Your task to perform on an android device: turn on location history Image 0: 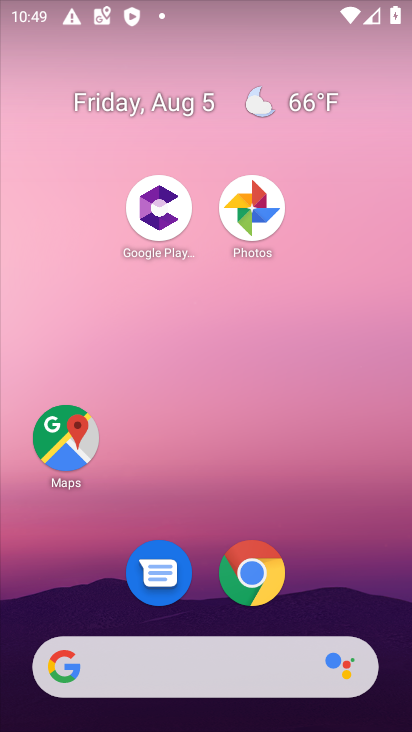
Step 0: press home button
Your task to perform on an android device: turn on location history Image 1: 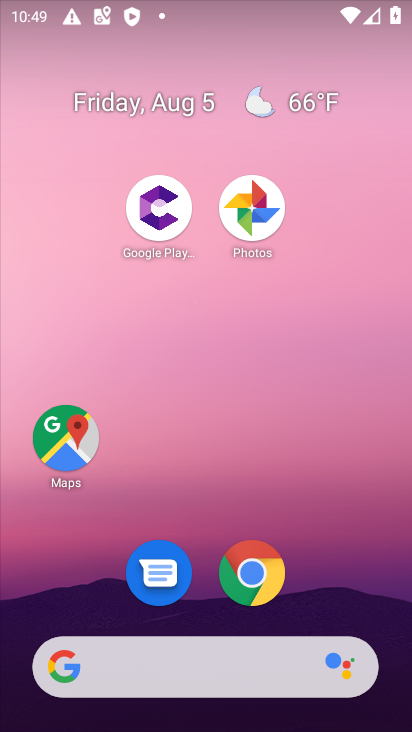
Step 1: drag from (254, 203) to (214, 63)
Your task to perform on an android device: turn on location history Image 2: 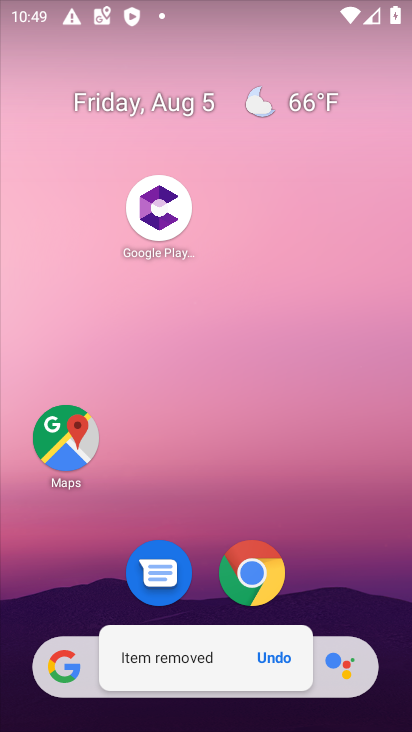
Step 2: drag from (330, 609) to (319, 2)
Your task to perform on an android device: turn on location history Image 3: 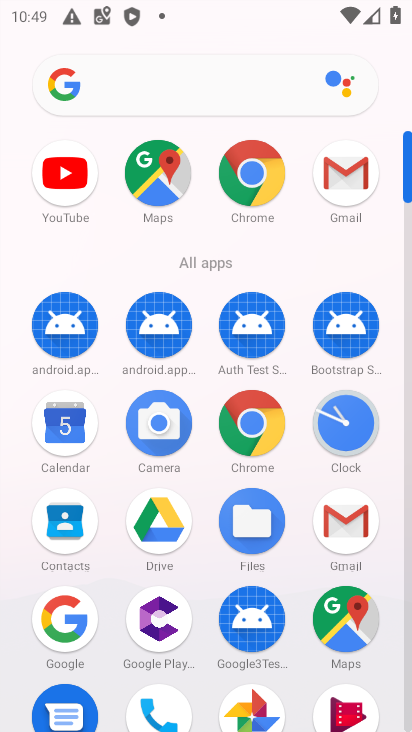
Step 3: drag from (205, 568) to (219, 77)
Your task to perform on an android device: turn on location history Image 4: 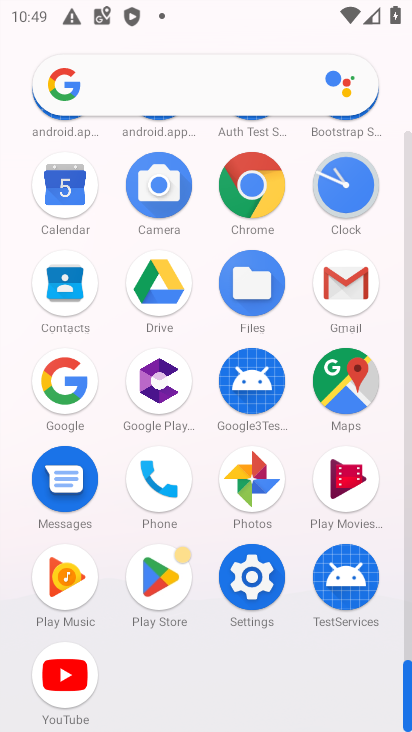
Step 4: click (249, 569)
Your task to perform on an android device: turn on location history Image 5: 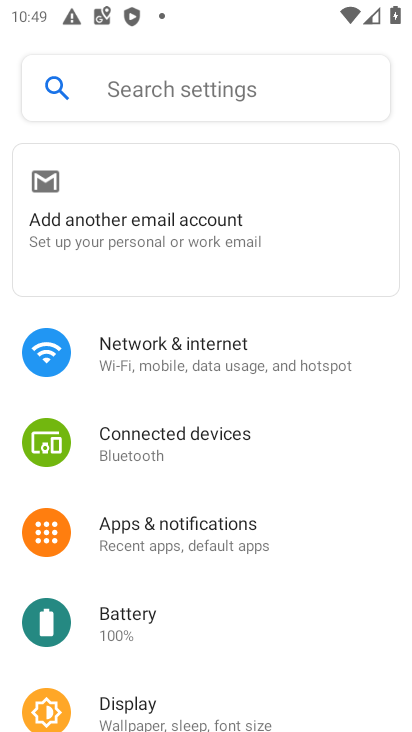
Step 5: drag from (180, 660) to (212, 56)
Your task to perform on an android device: turn on location history Image 6: 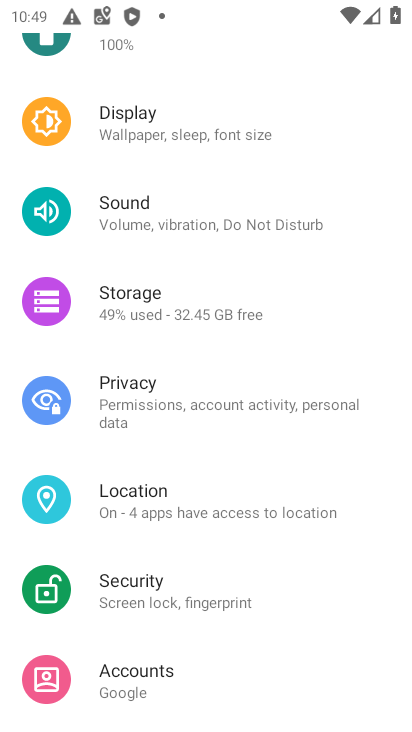
Step 6: click (183, 490)
Your task to perform on an android device: turn on location history Image 7: 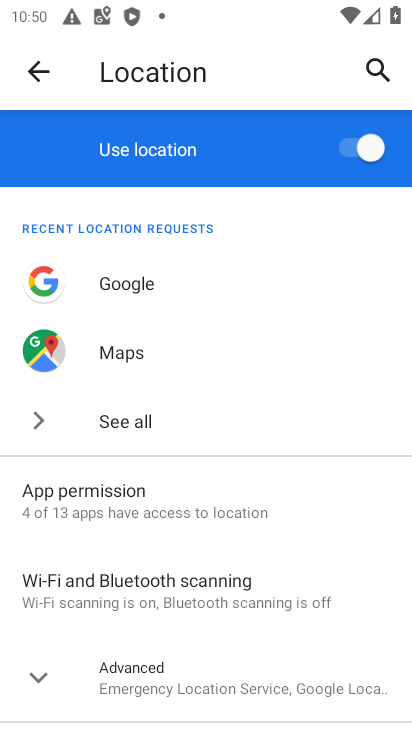
Step 7: drag from (207, 637) to (214, 108)
Your task to perform on an android device: turn on location history Image 8: 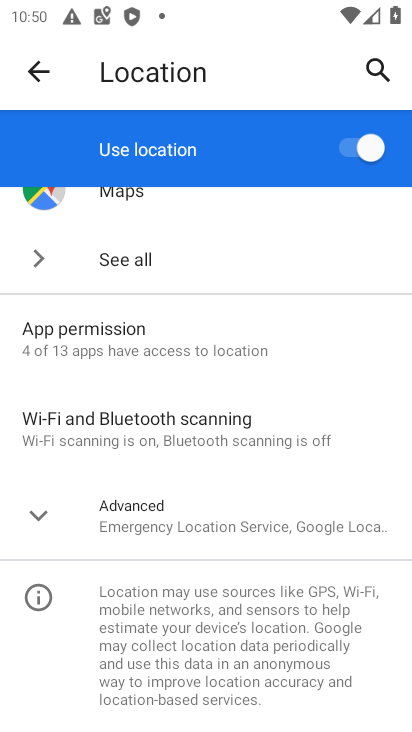
Step 8: click (39, 504)
Your task to perform on an android device: turn on location history Image 9: 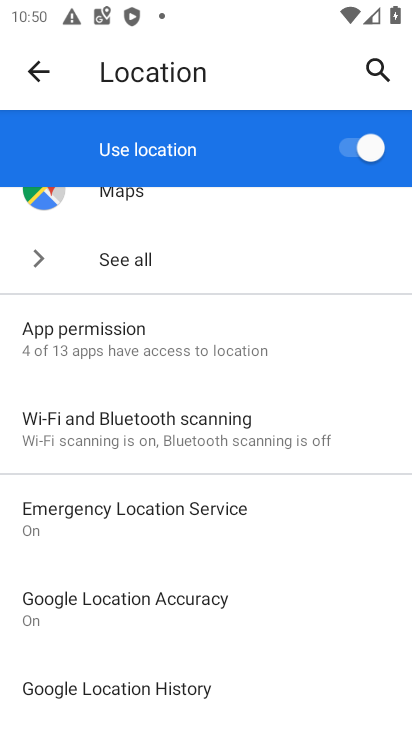
Step 9: click (162, 606)
Your task to perform on an android device: turn on location history Image 10: 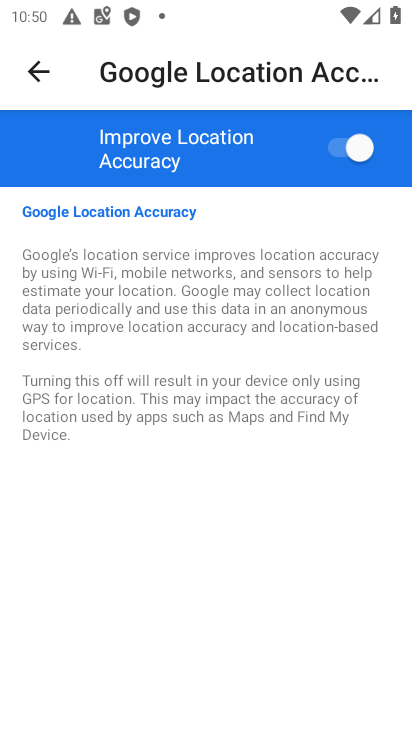
Step 10: task complete